Your task to perform on an android device: see tabs open on other devices in the chrome app Image 0: 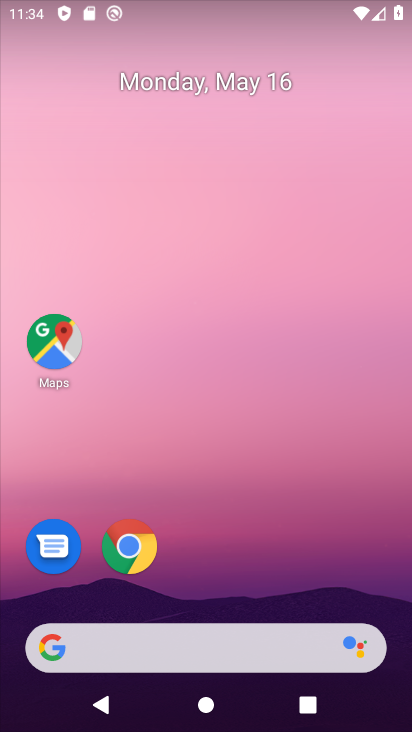
Step 0: click (129, 545)
Your task to perform on an android device: see tabs open on other devices in the chrome app Image 1: 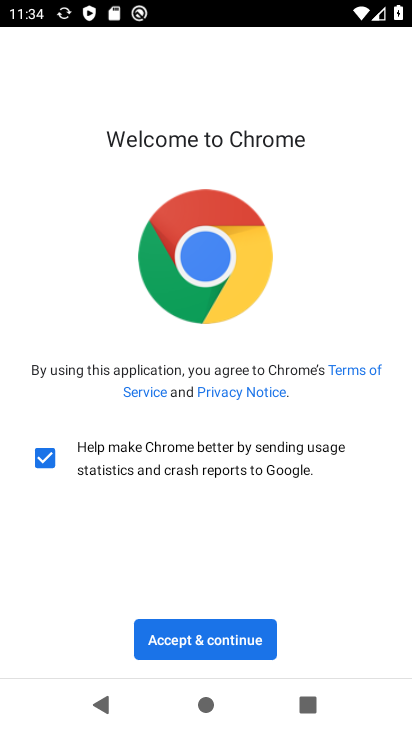
Step 1: click (206, 632)
Your task to perform on an android device: see tabs open on other devices in the chrome app Image 2: 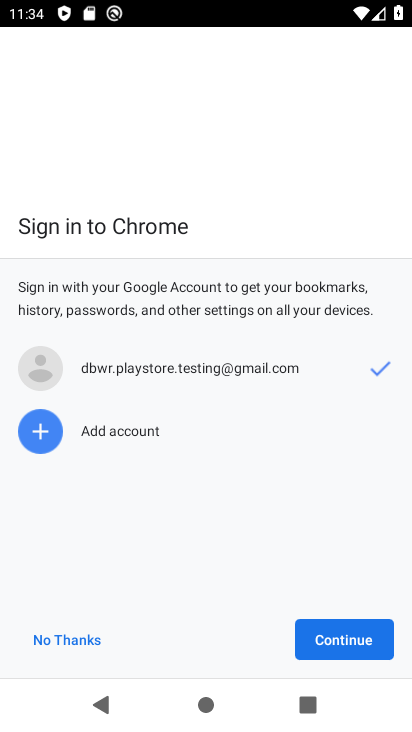
Step 2: click (340, 641)
Your task to perform on an android device: see tabs open on other devices in the chrome app Image 3: 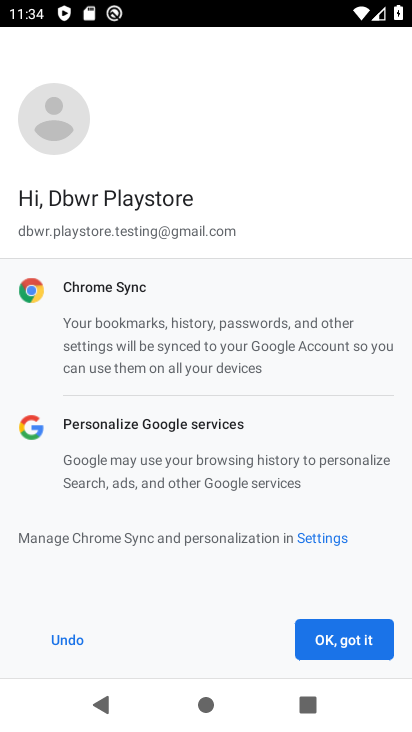
Step 3: click (340, 641)
Your task to perform on an android device: see tabs open on other devices in the chrome app Image 4: 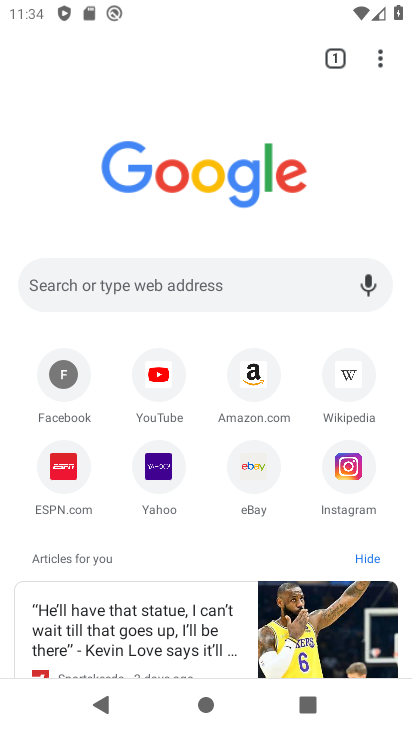
Step 4: click (379, 64)
Your task to perform on an android device: see tabs open on other devices in the chrome app Image 5: 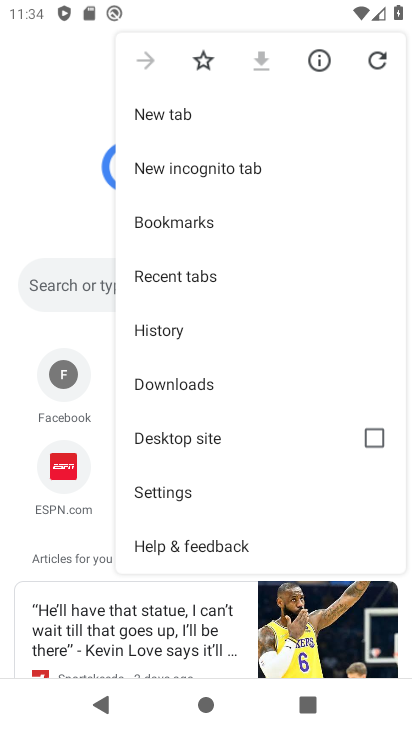
Step 5: click (162, 275)
Your task to perform on an android device: see tabs open on other devices in the chrome app Image 6: 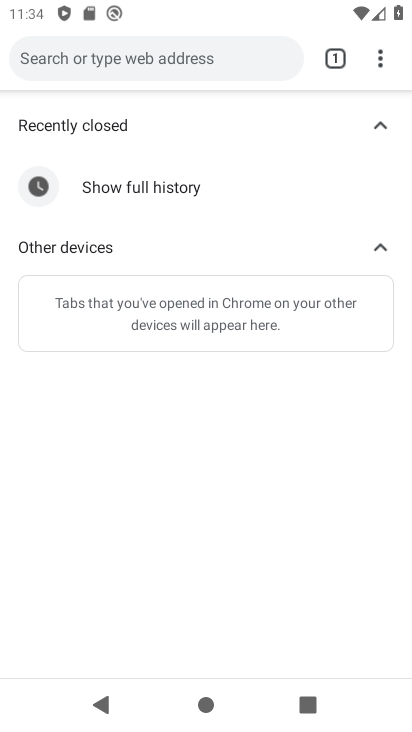
Step 6: task complete